Your task to perform on an android device: change the clock display to analog Image 0: 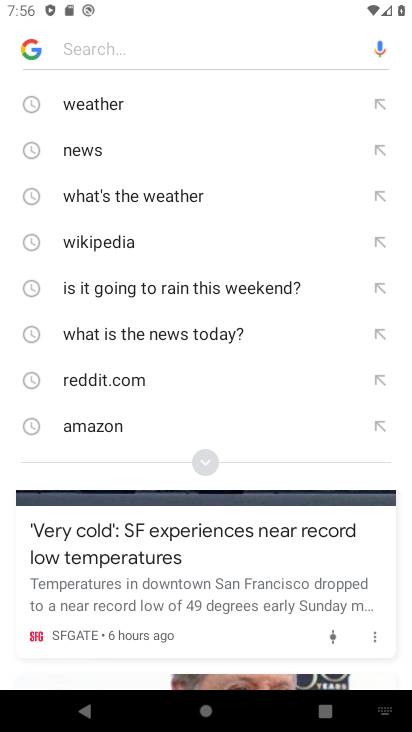
Step 0: press back button
Your task to perform on an android device: change the clock display to analog Image 1: 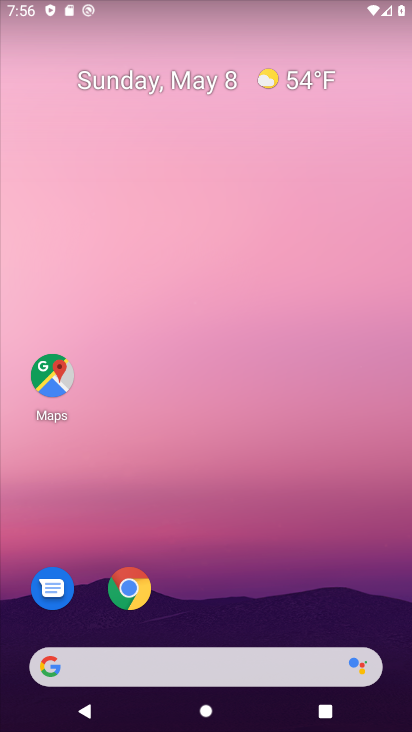
Step 1: drag from (72, 575) to (181, 402)
Your task to perform on an android device: change the clock display to analog Image 2: 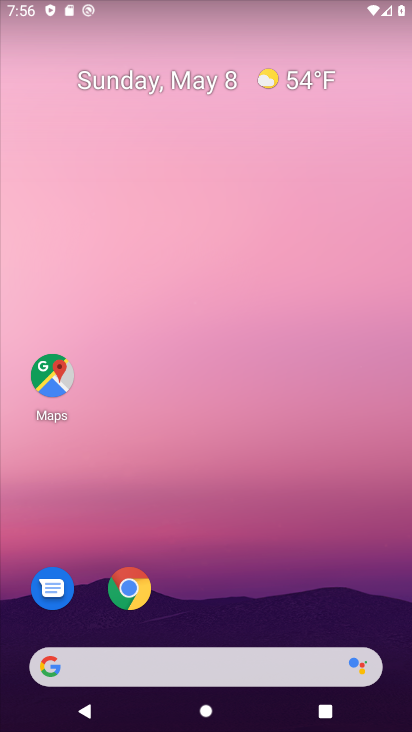
Step 2: drag from (7, 371) to (182, 216)
Your task to perform on an android device: change the clock display to analog Image 3: 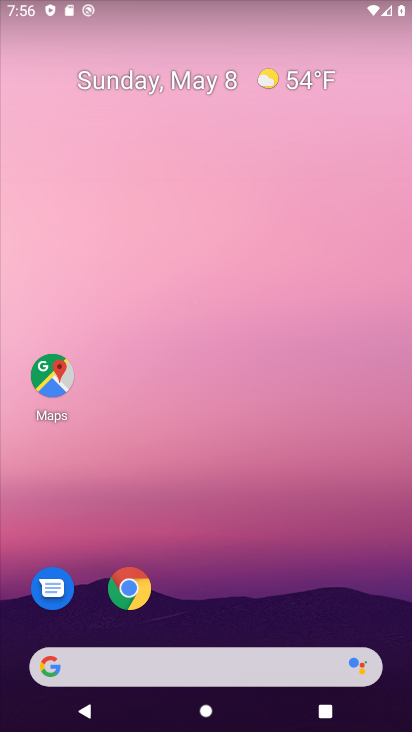
Step 3: drag from (35, 591) to (212, 256)
Your task to perform on an android device: change the clock display to analog Image 4: 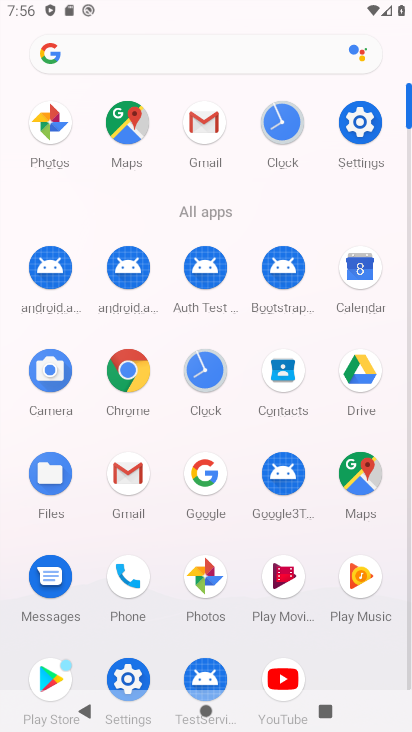
Step 4: click (192, 379)
Your task to perform on an android device: change the clock display to analog Image 5: 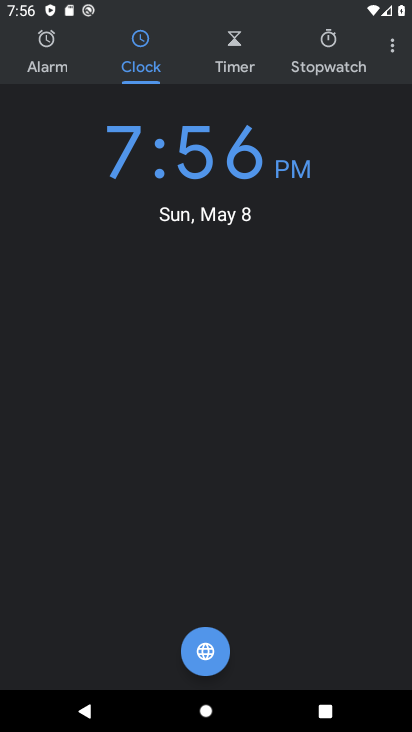
Step 5: click (386, 45)
Your task to perform on an android device: change the clock display to analog Image 6: 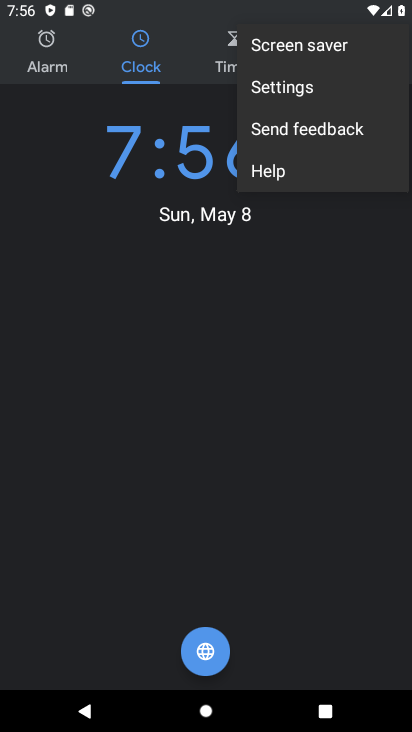
Step 6: click (299, 87)
Your task to perform on an android device: change the clock display to analog Image 7: 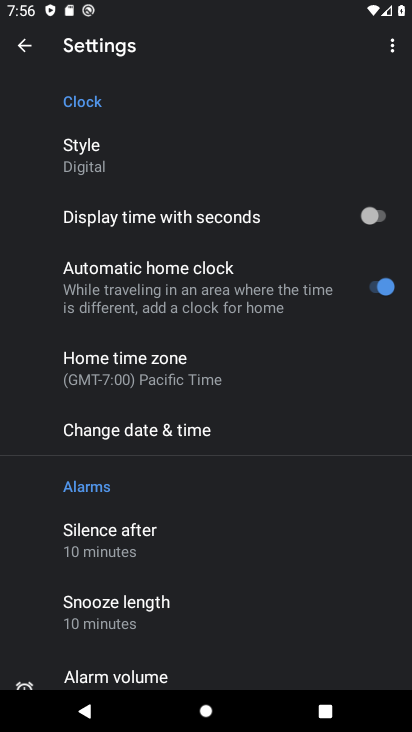
Step 7: click (88, 162)
Your task to perform on an android device: change the clock display to analog Image 8: 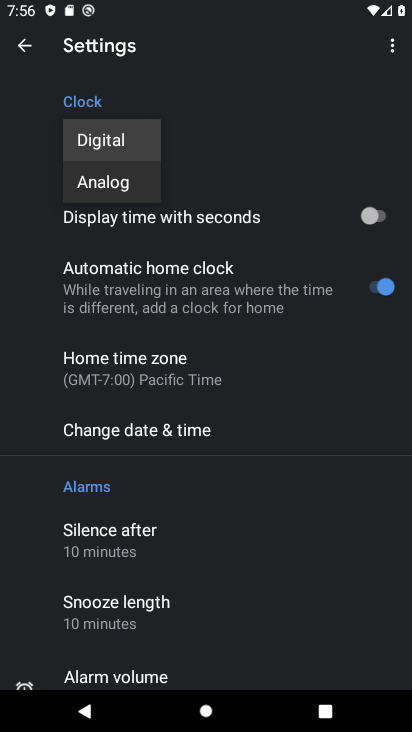
Step 8: click (118, 182)
Your task to perform on an android device: change the clock display to analog Image 9: 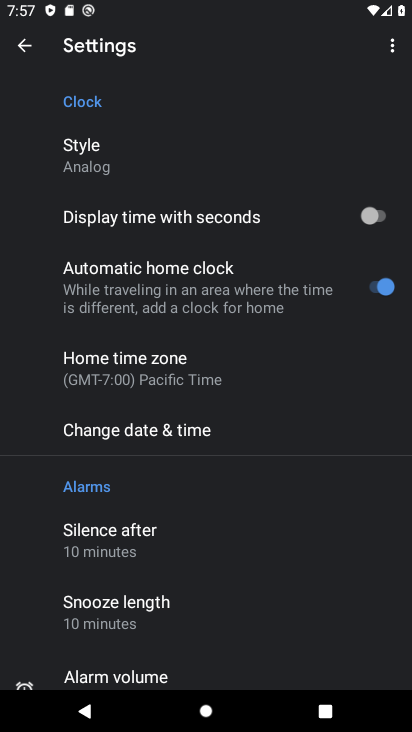
Step 9: task complete